Your task to perform on an android device: check the backup settings in the google photos Image 0: 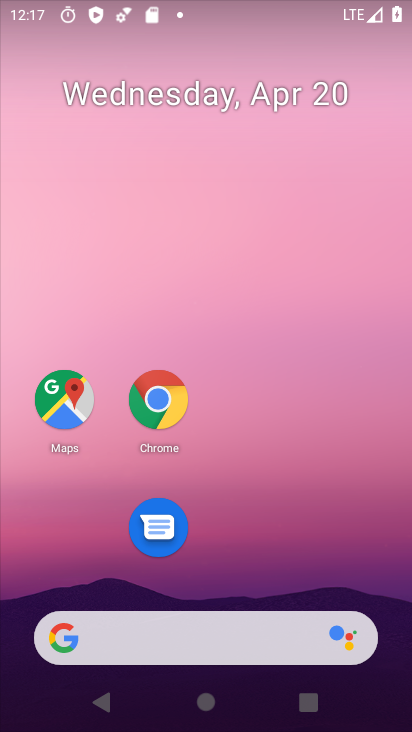
Step 0: drag from (258, 628) to (226, 211)
Your task to perform on an android device: check the backup settings in the google photos Image 1: 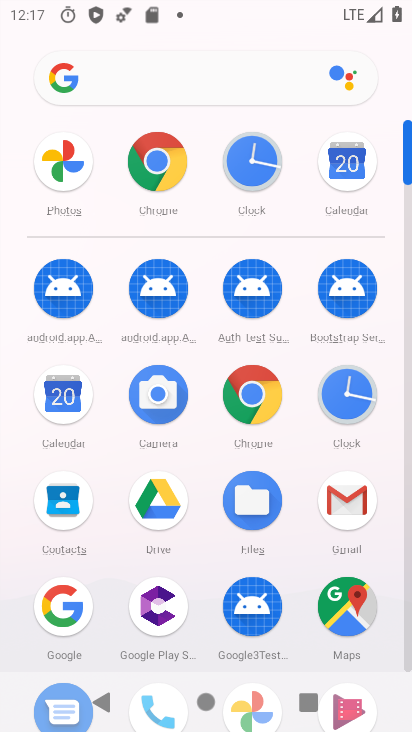
Step 1: drag from (210, 562) to (199, 382)
Your task to perform on an android device: check the backup settings in the google photos Image 2: 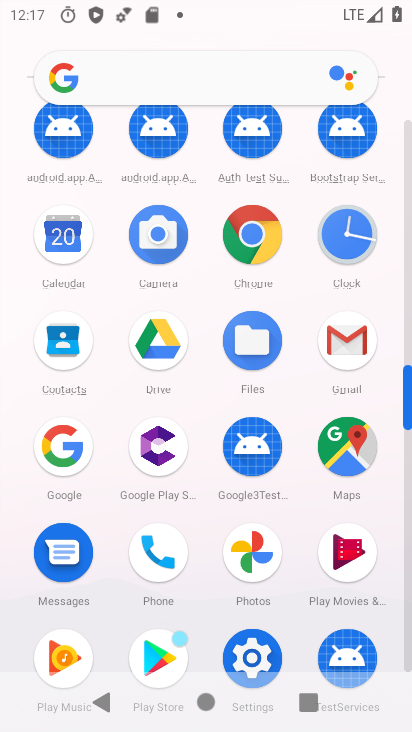
Step 2: click (267, 556)
Your task to perform on an android device: check the backup settings in the google photos Image 3: 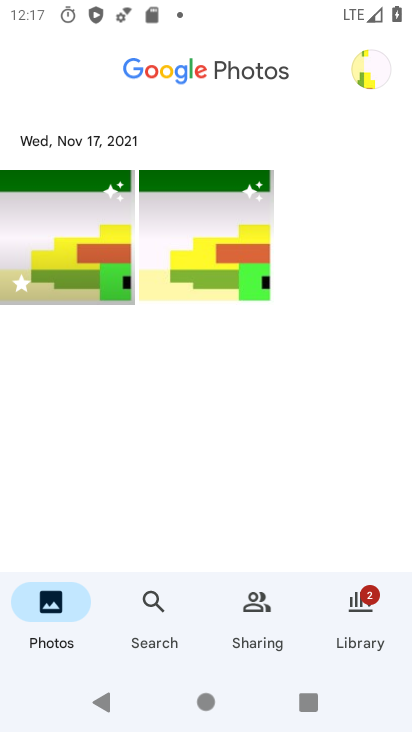
Step 3: click (369, 74)
Your task to perform on an android device: check the backup settings in the google photos Image 4: 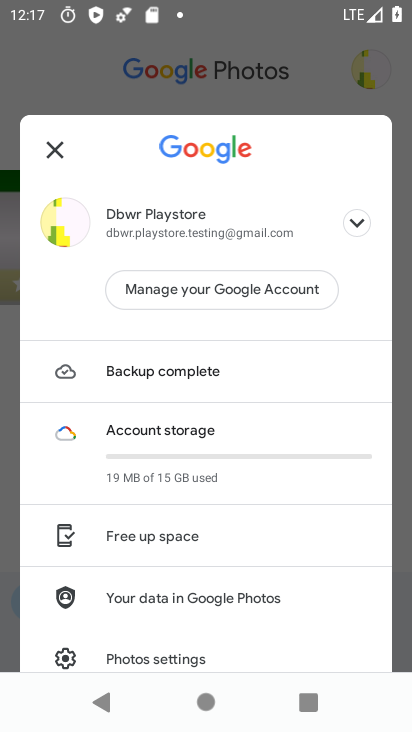
Step 4: click (151, 653)
Your task to perform on an android device: check the backup settings in the google photos Image 5: 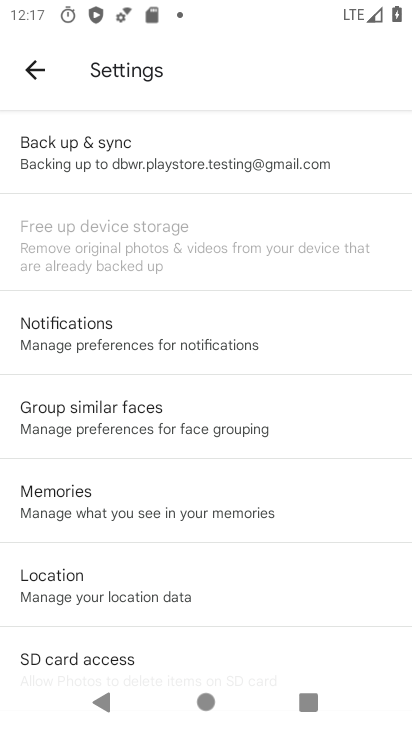
Step 5: click (98, 122)
Your task to perform on an android device: check the backup settings in the google photos Image 6: 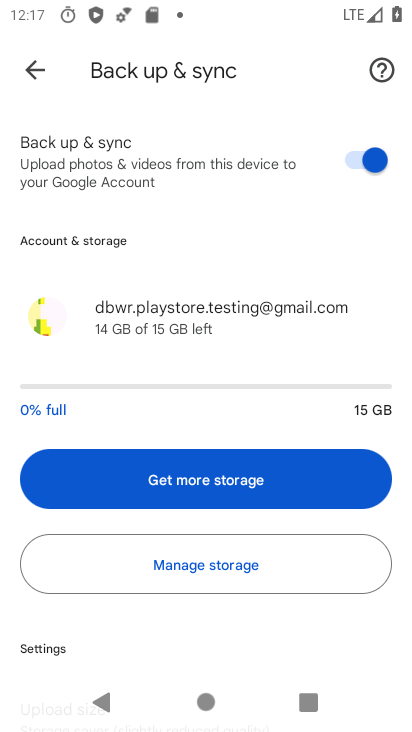
Step 6: task complete